Your task to perform on an android device: turn on location history Image 0: 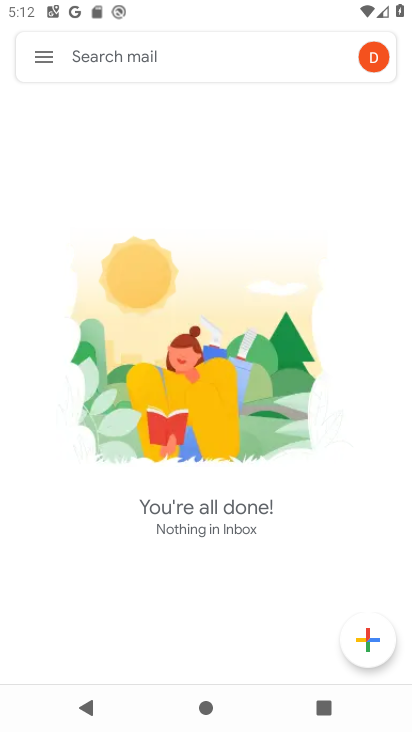
Step 0: press back button
Your task to perform on an android device: turn on location history Image 1: 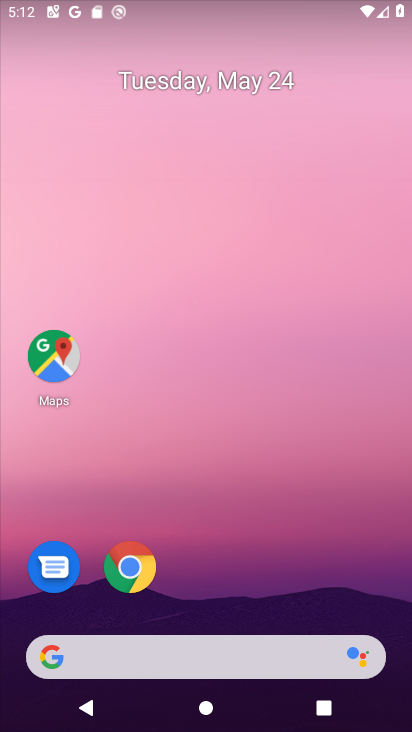
Step 1: drag from (240, 578) to (258, 186)
Your task to perform on an android device: turn on location history Image 2: 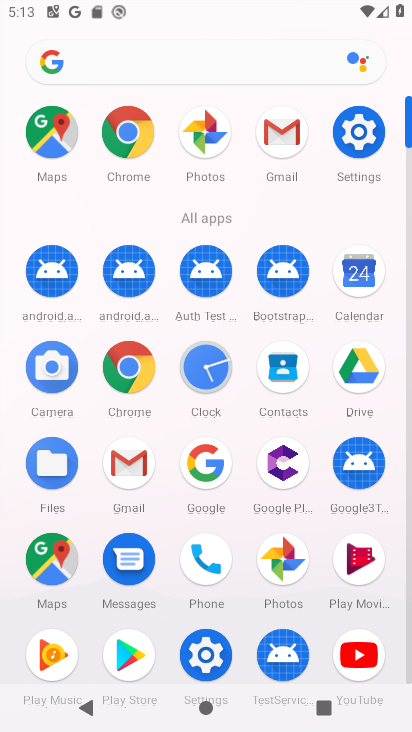
Step 2: click (360, 130)
Your task to perform on an android device: turn on location history Image 3: 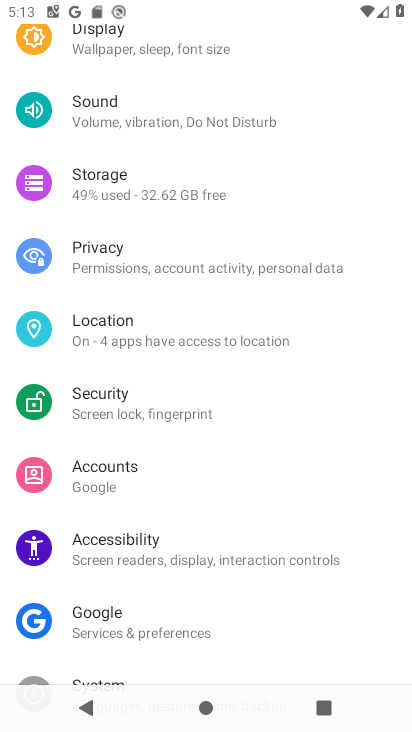
Step 3: drag from (182, 309) to (196, 430)
Your task to perform on an android device: turn on location history Image 4: 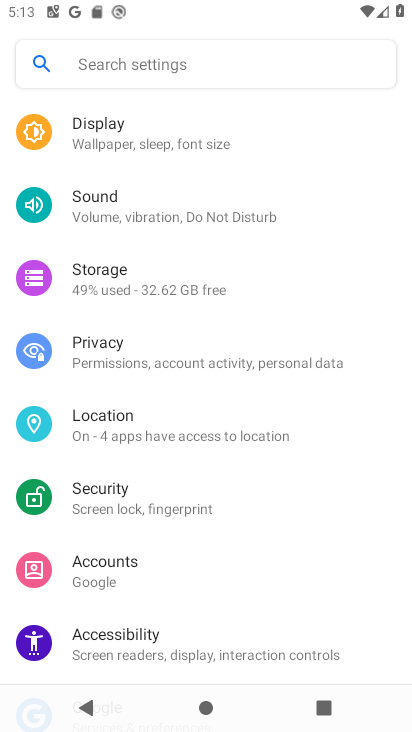
Step 4: click (141, 432)
Your task to perform on an android device: turn on location history Image 5: 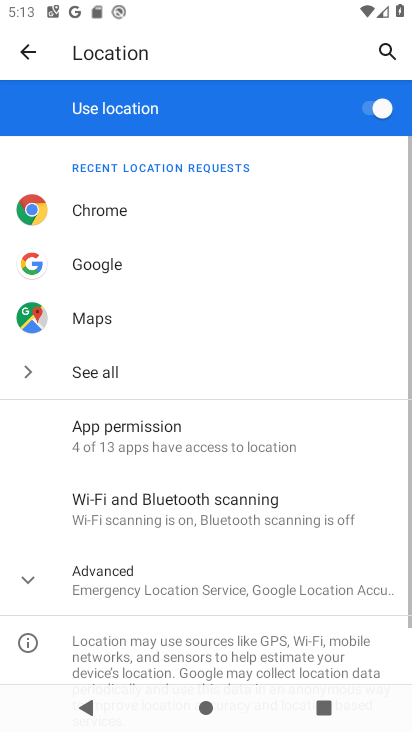
Step 5: click (219, 588)
Your task to perform on an android device: turn on location history Image 6: 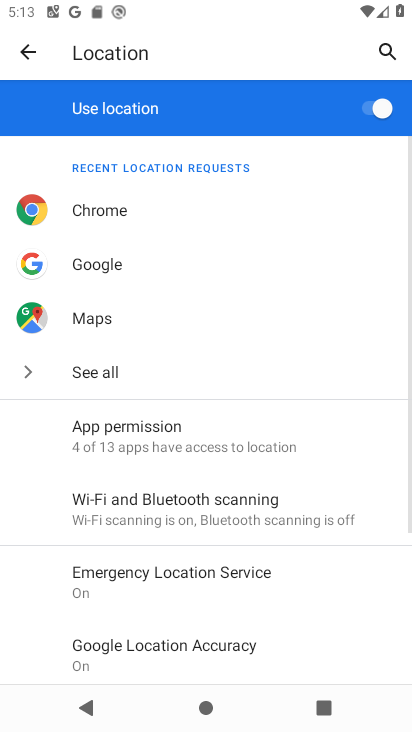
Step 6: task complete